Your task to perform on an android device: open chrome and create a bookmark for the current page Image 0: 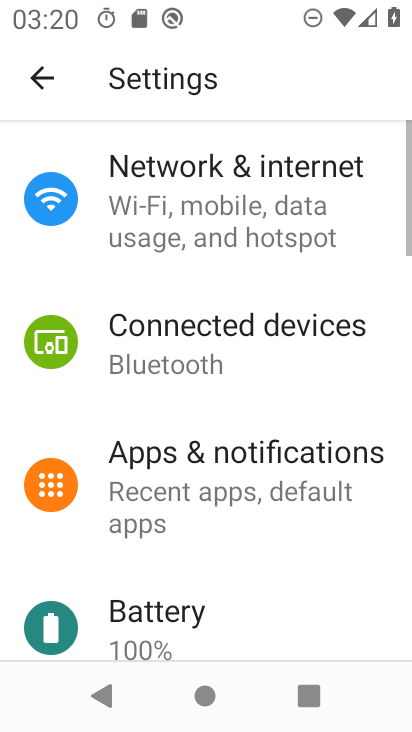
Step 0: press home button
Your task to perform on an android device: open chrome and create a bookmark for the current page Image 1: 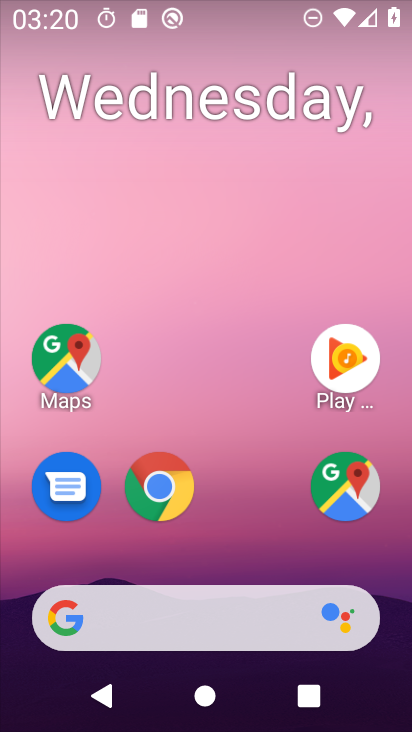
Step 1: drag from (245, 555) to (259, 144)
Your task to perform on an android device: open chrome and create a bookmark for the current page Image 2: 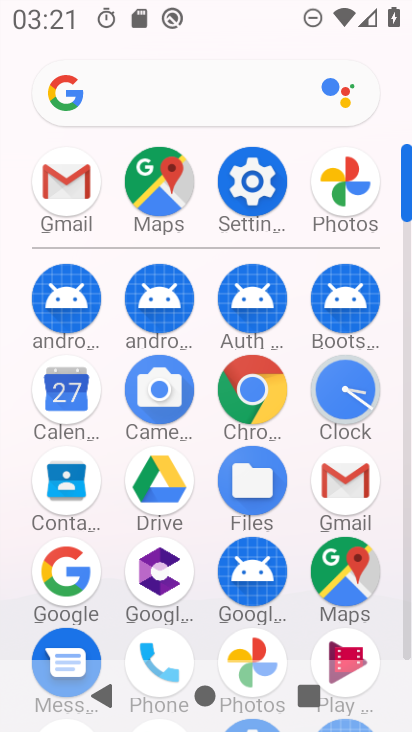
Step 2: click (255, 391)
Your task to perform on an android device: open chrome and create a bookmark for the current page Image 3: 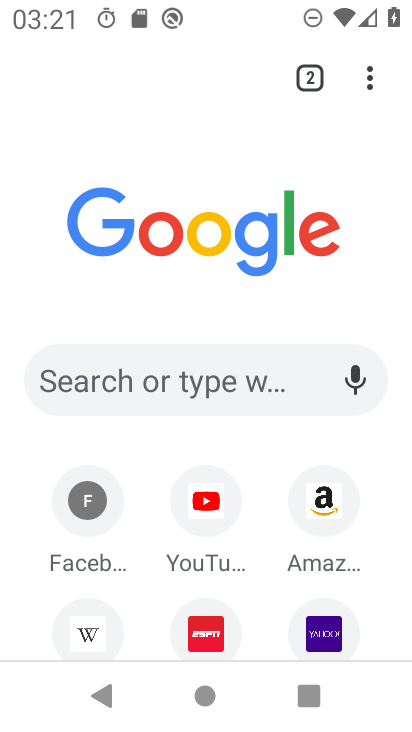
Step 3: click (368, 88)
Your task to perform on an android device: open chrome and create a bookmark for the current page Image 4: 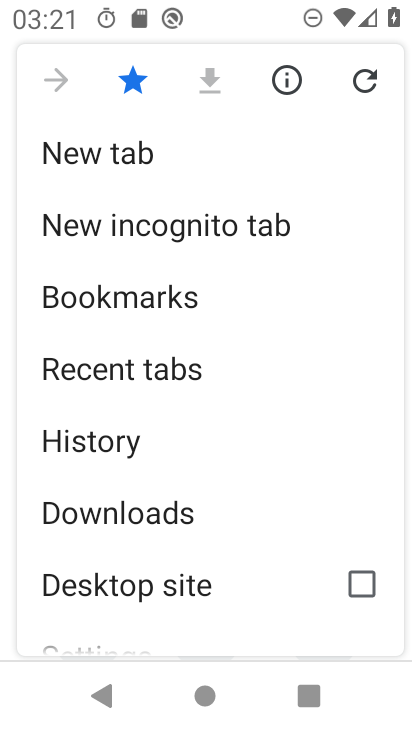
Step 4: task complete